Your task to perform on an android device: Open internet settings Image 0: 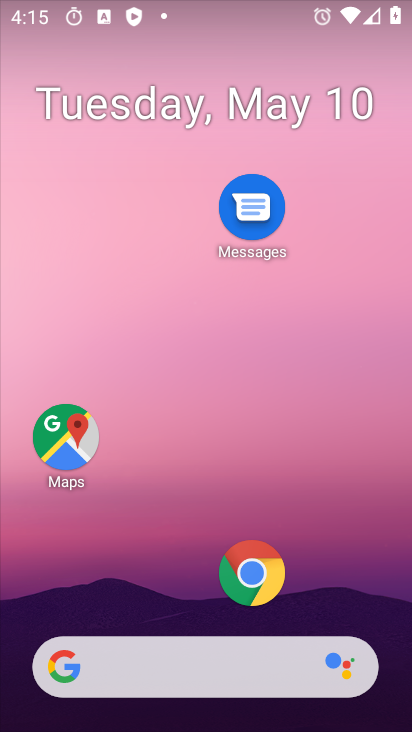
Step 0: drag from (187, 609) to (157, 155)
Your task to perform on an android device: Open internet settings Image 1: 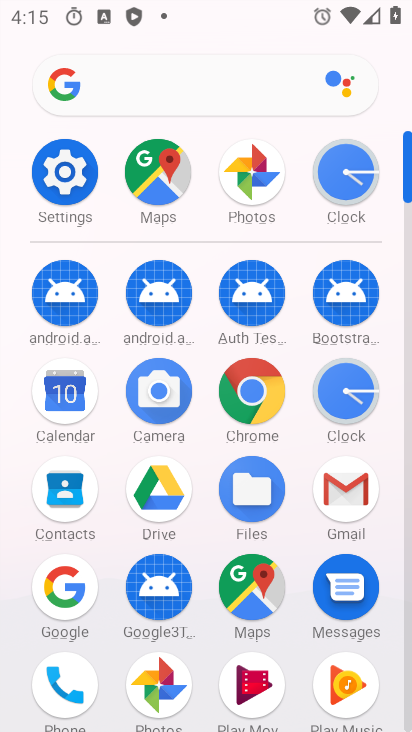
Step 1: click (23, 172)
Your task to perform on an android device: Open internet settings Image 2: 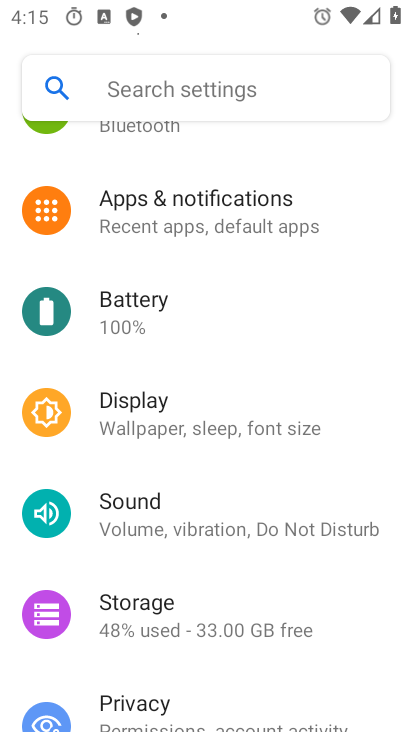
Step 2: drag from (222, 227) to (246, 538)
Your task to perform on an android device: Open internet settings Image 3: 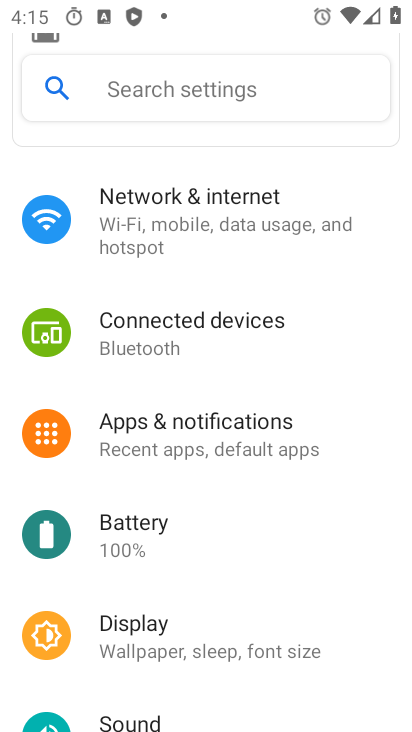
Step 3: click (213, 233)
Your task to perform on an android device: Open internet settings Image 4: 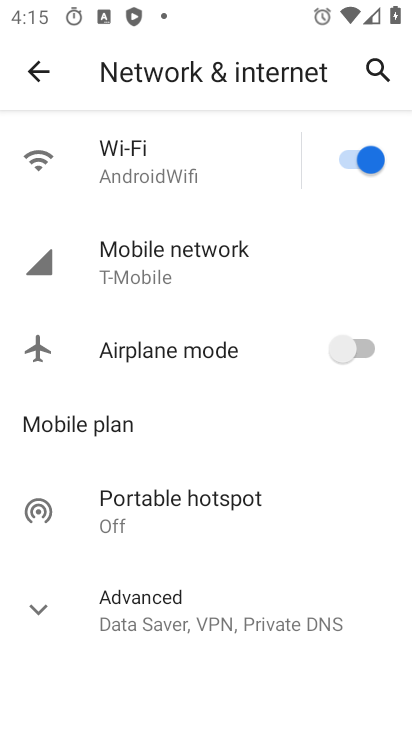
Step 4: drag from (242, 627) to (254, 318)
Your task to perform on an android device: Open internet settings Image 5: 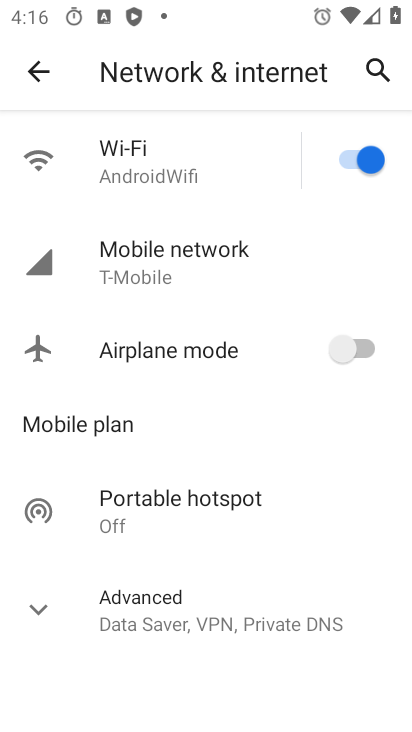
Step 5: drag from (199, 605) to (203, 245)
Your task to perform on an android device: Open internet settings Image 6: 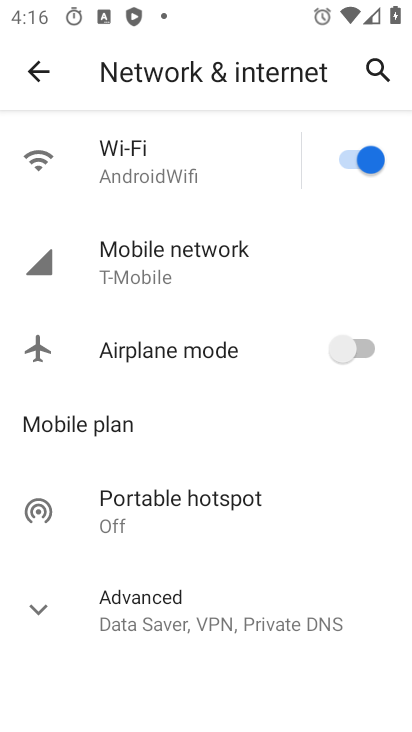
Step 6: drag from (192, 230) to (207, 500)
Your task to perform on an android device: Open internet settings Image 7: 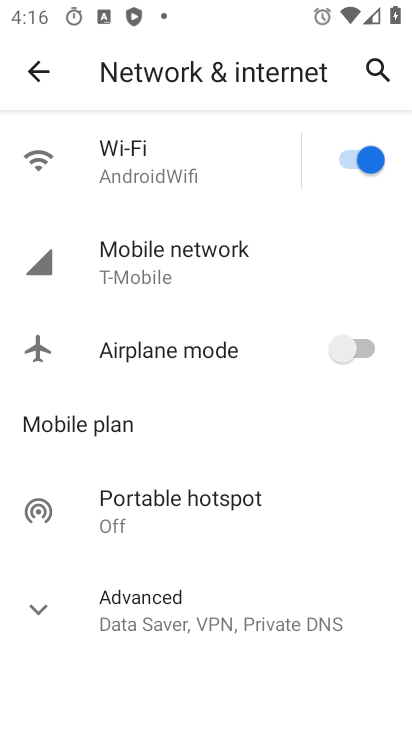
Step 7: click (226, 254)
Your task to perform on an android device: Open internet settings Image 8: 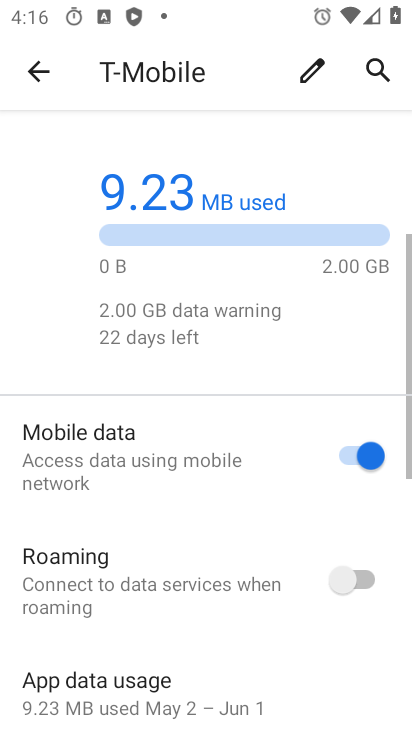
Step 8: task complete